Your task to perform on an android device: What is the recent news? Image 0: 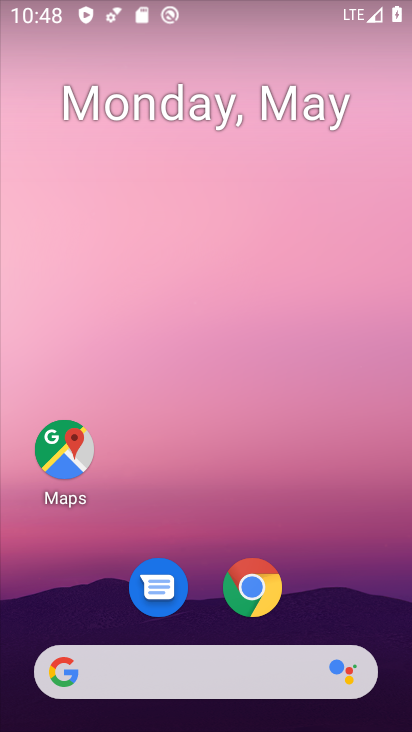
Step 0: click (130, 687)
Your task to perform on an android device: What is the recent news? Image 1: 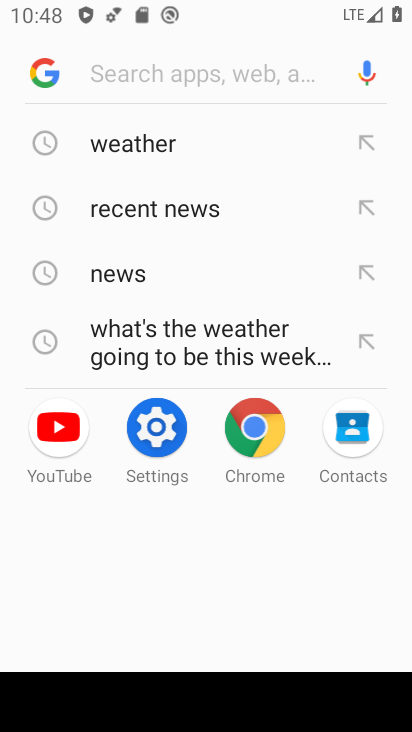
Step 1: click (200, 219)
Your task to perform on an android device: What is the recent news? Image 2: 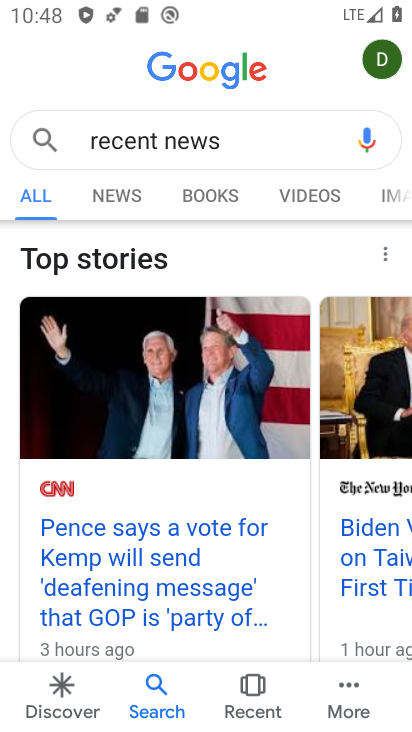
Step 2: task complete